Your task to perform on an android device: see sites visited before in the chrome app Image 0: 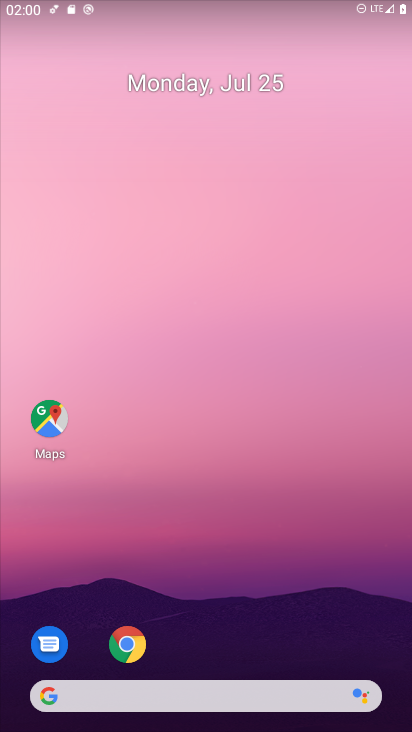
Step 0: drag from (194, 728) to (198, 136)
Your task to perform on an android device: see sites visited before in the chrome app Image 1: 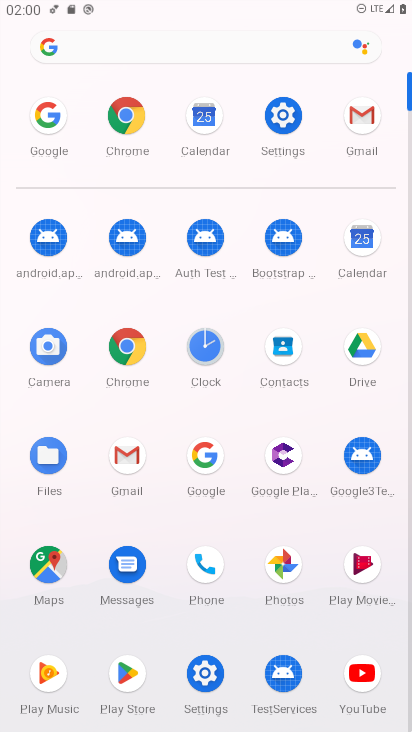
Step 1: click (132, 346)
Your task to perform on an android device: see sites visited before in the chrome app Image 2: 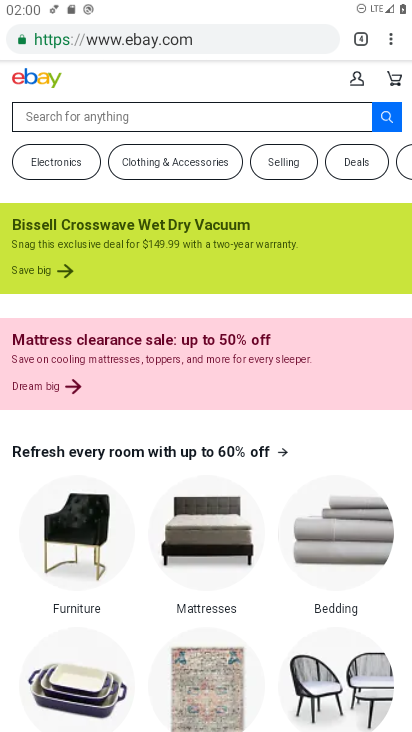
Step 2: click (390, 39)
Your task to perform on an android device: see sites visited before in the chrome app Image 3: 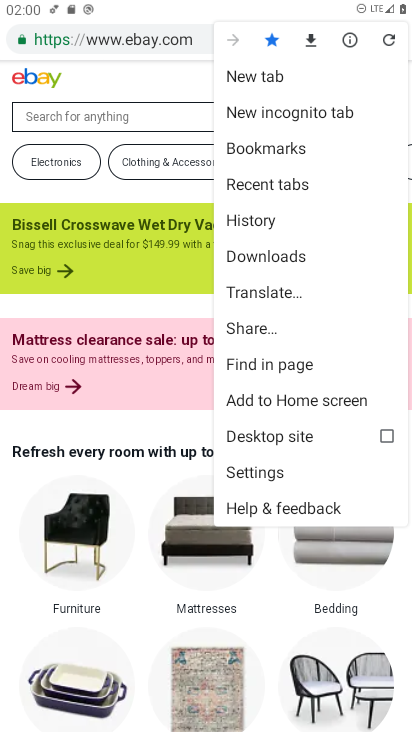
Step 3: click (263, 220)
Your task to perform on an android device: see sites visited before in the chrome app Image 4: 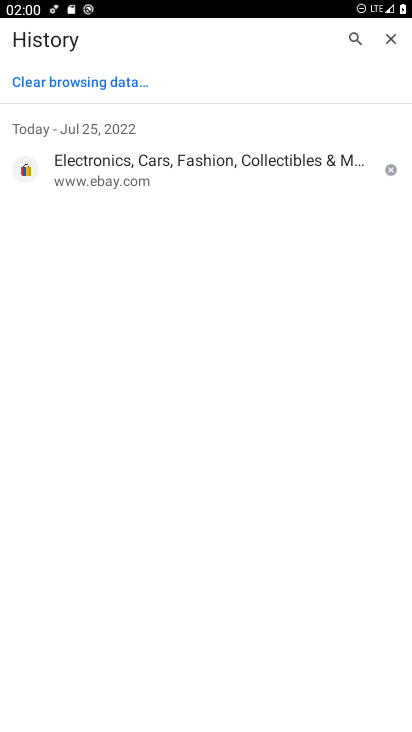
Step 4: task complete